Your task to perform on an android device: change alarm snooze length Image 0: 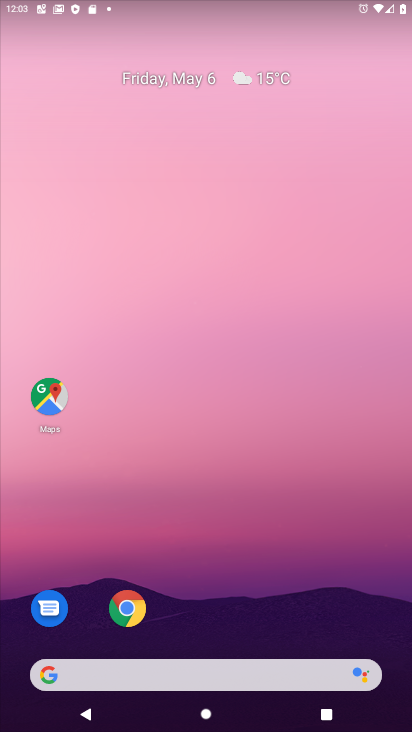
Step 0: drag from (270, 600) to (291, 136)
Your task to perform on an android device: change alarm snooze length Image 1: 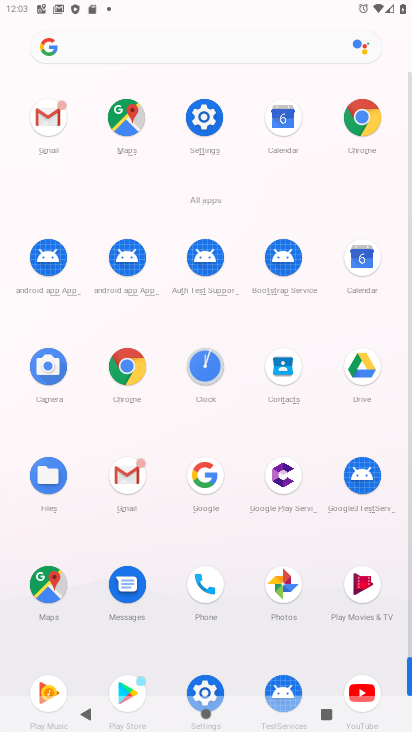
Step 1: click (209, 366)
Your task to perform on an android device: change alarm snooze length Image 2: 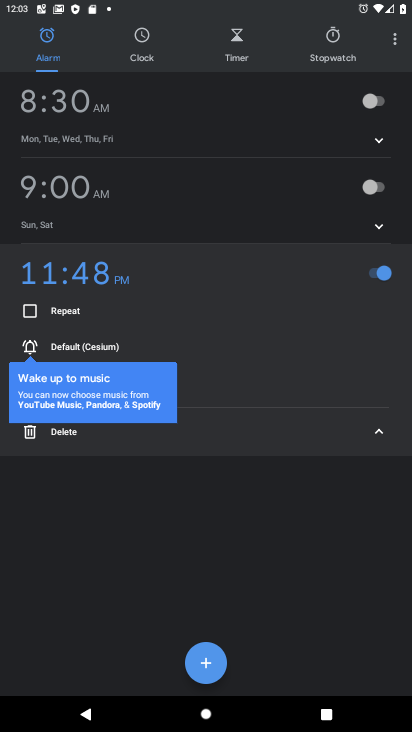
Step 2: click (398, 41)
Your task to perform on an android device: change alarm snooze length Image 3: 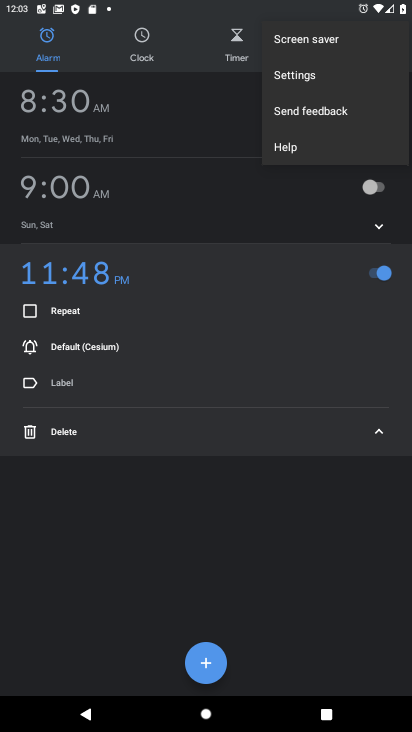
Step 3: click (320, 82)
Your task to perform on an android device: change alarm snooze length Image 4: 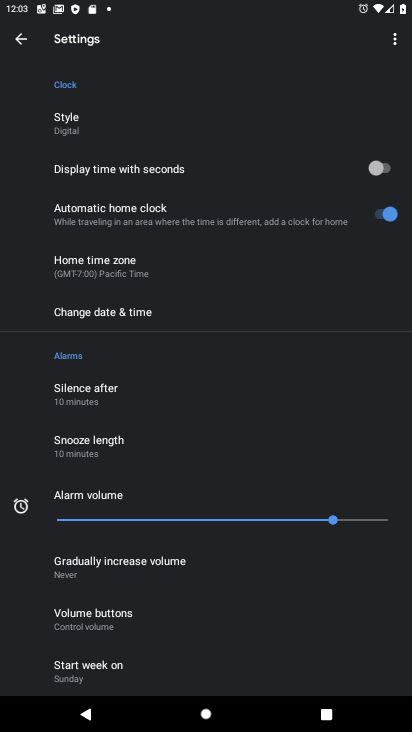
Step 4: click (144, 445)
Your task to perform on an android device: change alarm snooze length Image 5: 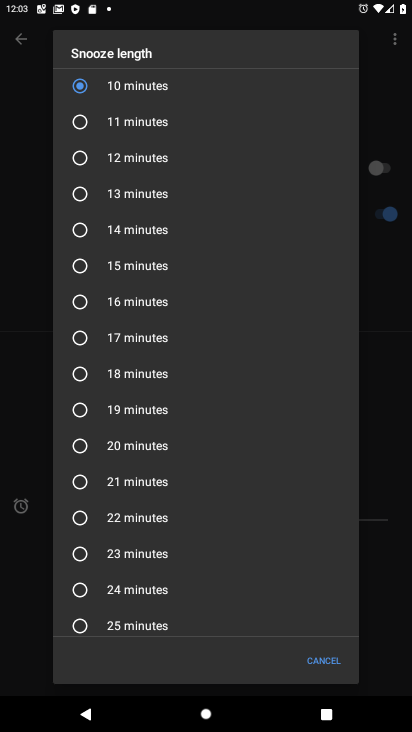
Step 5: click (167, 123)
Your task to perform on an android device: change alarm snooze length Image 6: 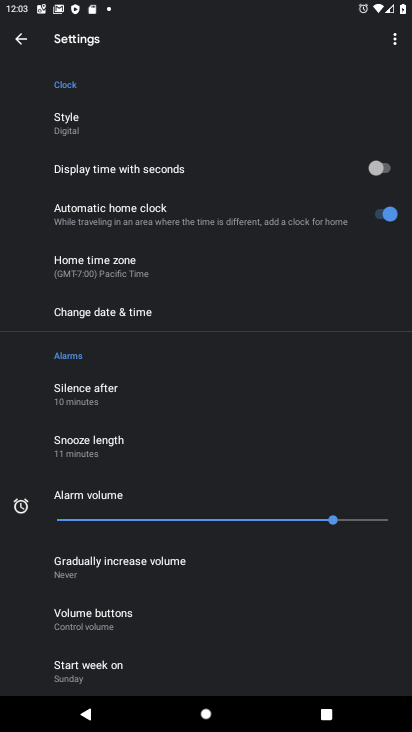
Step 6: task complete